Your task to perform on an android device: Open notification settings Image 0: 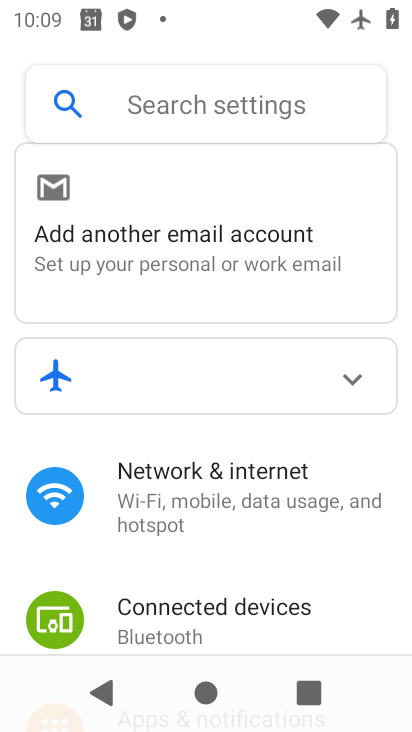
Step 0: drag from (332, 572) to (254, 306)
Your task to perform on an android device: Open notification settings Image 1: 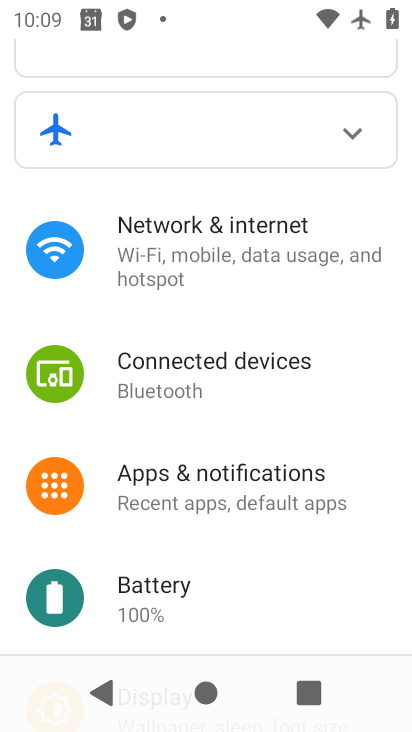
Step 1: click (218, 472)
Your task to perform on an android device: Open notification settings Image 2: 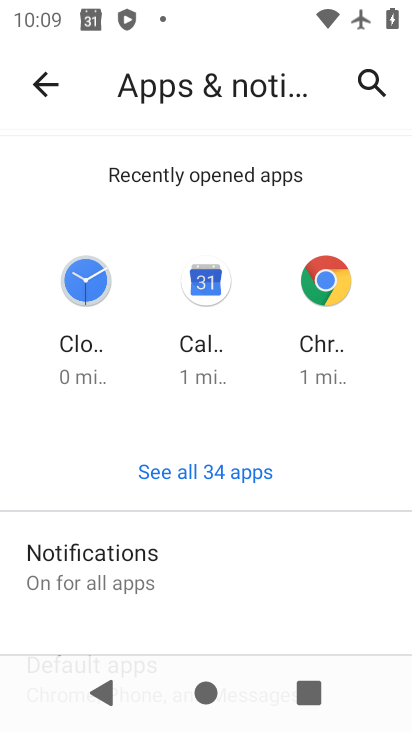
Step 2: task complete